Your task to perform on an android device: Open calendar and show me the first week of next month Image 0: 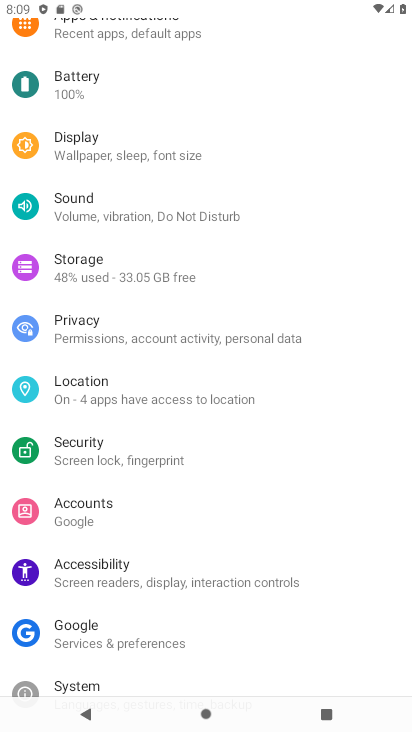
Step 0: drag from (314, 647) to (299, 322)
Your task to perform on an android device: Open calendar and show me the first week of next month Image 1: 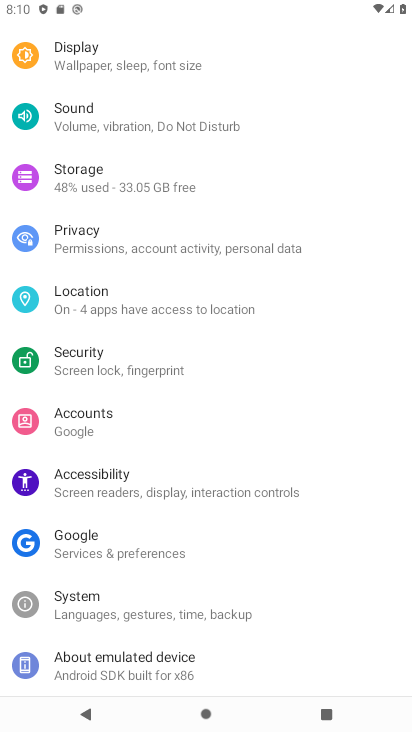
Step 1: press home button
Your task to perform on an android device: Open calendar and show me the first week of next month Image 2: 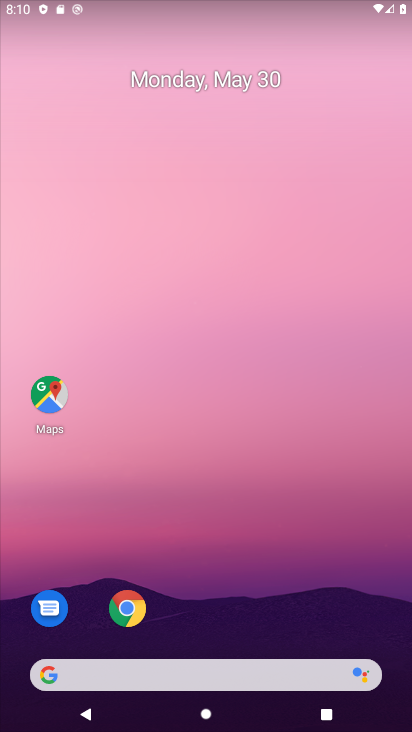
Step 2: drag from (389, 647) to (362, 241)
Your task to perform on an android device: Open calendar and show me the first week of next month Image 3: 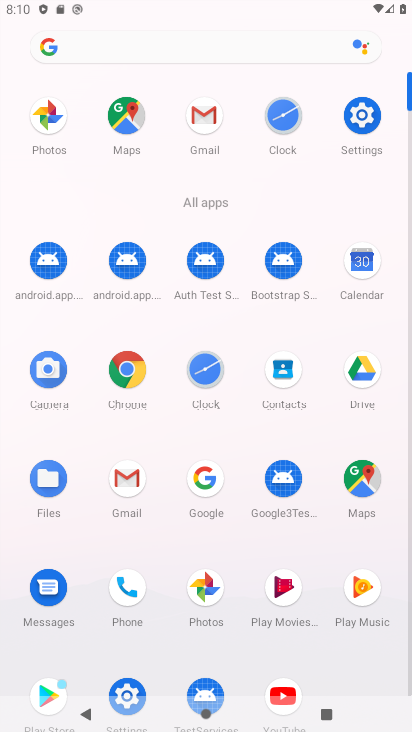
Step 3: click (362, 266)
Your task to perform on an android device: Open calendar and show me the first week of next month Image 4: 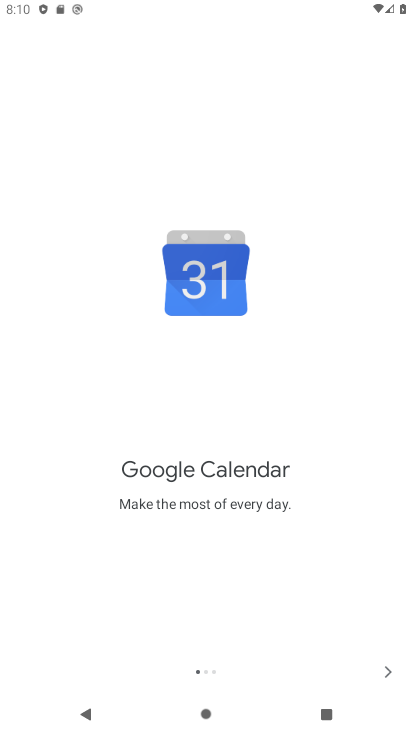
Step 4: click (387, 676)
Your task to perform on an android device: Open calendar and show me the first week of next month Image 5: 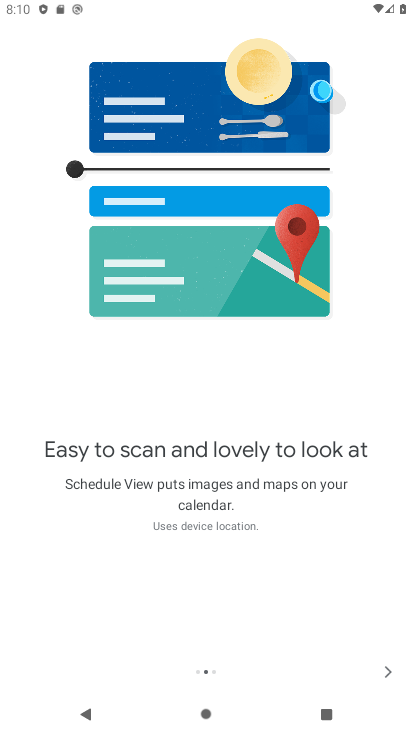
Step 5: click (387, 676)
Your task to perform on an android device: Open calendar and show me the first week of next month Image 6: 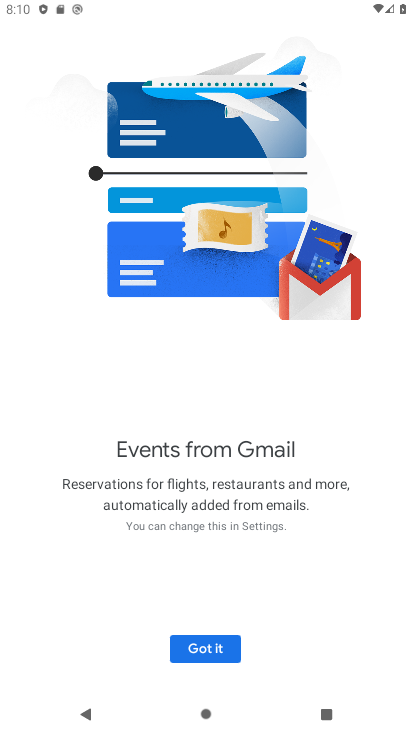
Step 6: click (238, 654)
Your task to perform on an android device: Open calendar and show me the first week of next month Image 7: 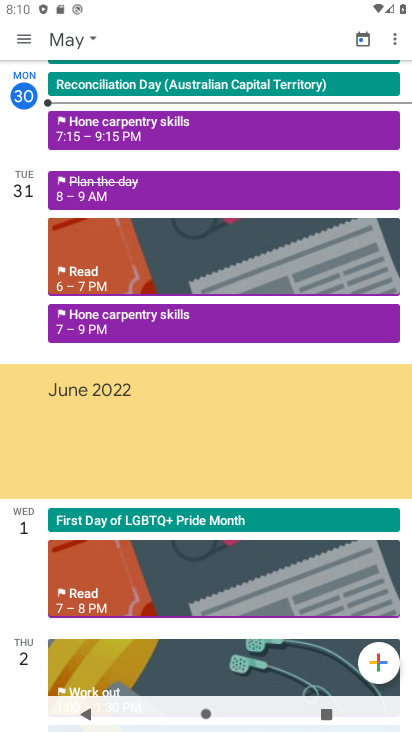
Step 7: click (85, 40)
Your task to perform on an android device: Open calendar and show me the first week of next month Image 8: 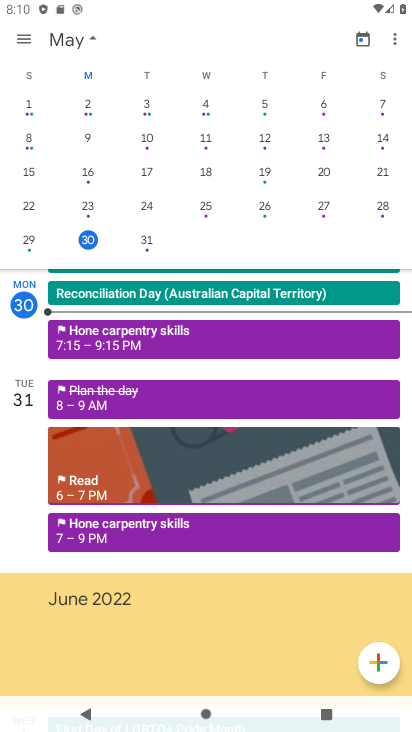
Step 8: drag from (391, 158) to (83, 155)
Your task to perform on an android device: Open calendar and show me the first week of next month Image 9: 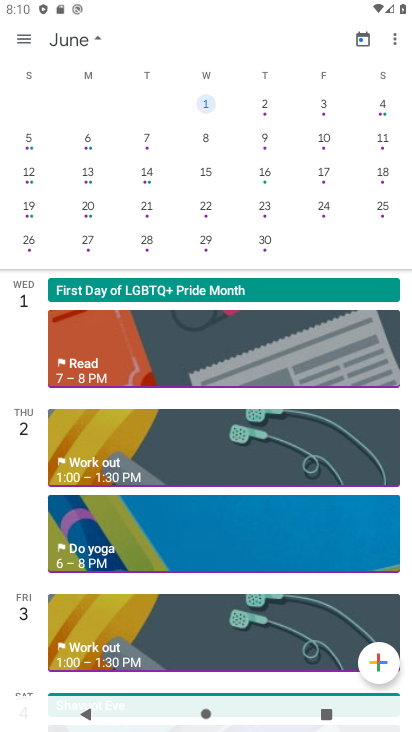
Step 9: click (206, 102)
Your task to perform on an android device: Open calendar and show me the first week of next month Image 10: 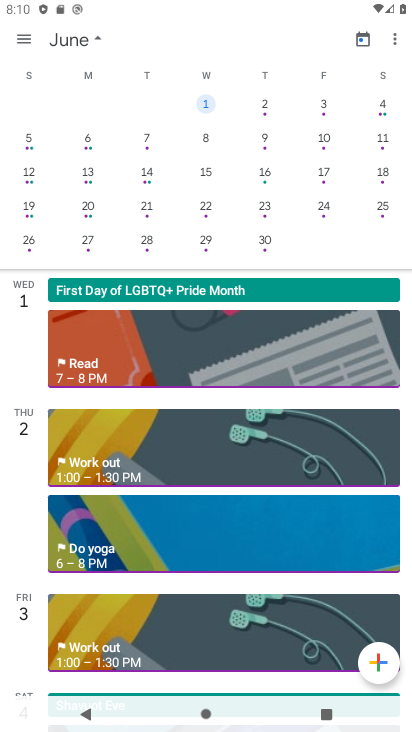
Step 10: click (22, 33)
Your task to perform on an android device: Open calendar and show me the first week of next month Image 11: 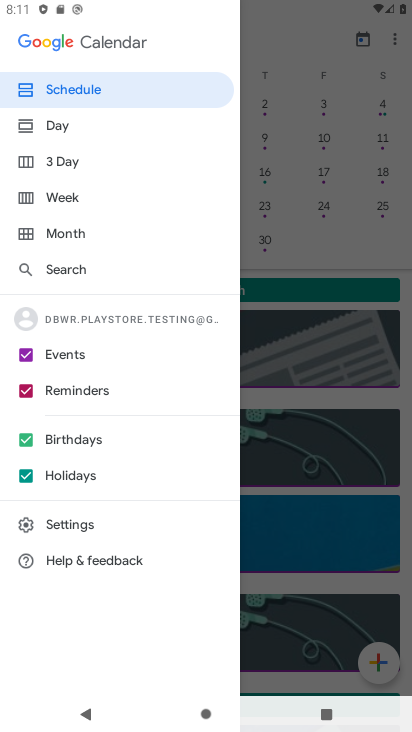
Step 11: click (55, 191)
Your task to perform on an android device: Open calendar and show me the first week of next month Image 12: 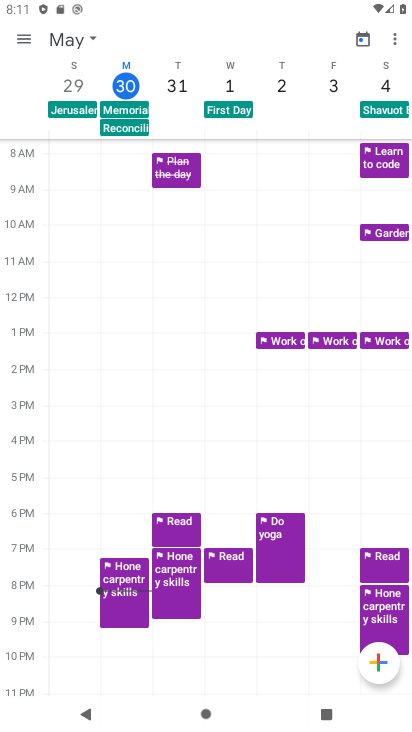
Step 12: task complete